Your task to perform on an android device: toggle notifications settings in the gmail app Image 0: 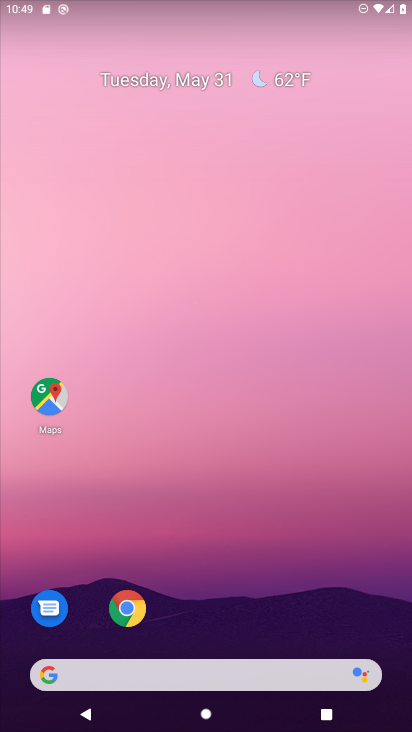
Step 0: drag from (305, 572) to (299, 199)
Your task to perform on an android device: toggle notifications settings in the gmail app Image 1: 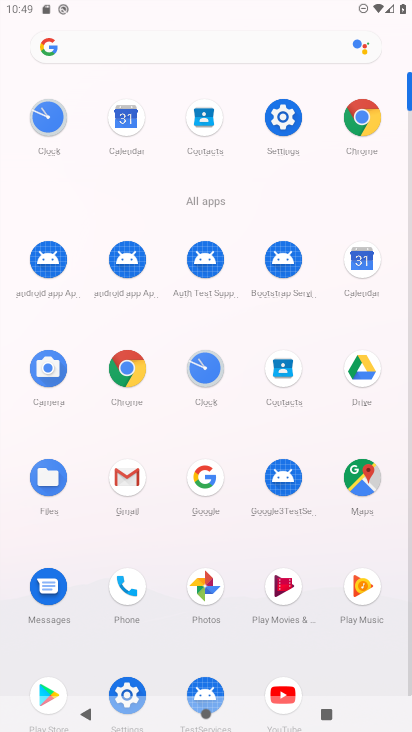
Step 1: click (131, 499)
Your task to perform on an android device: toggle notifications settings in the gmail app Image 2: 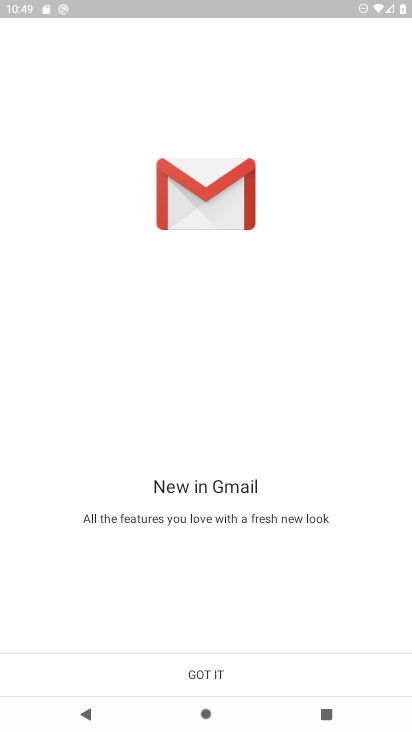
Step 2: click (228, 667)
Your task to perform on an android device: toggle notifications settings in the gmail app Image 3: 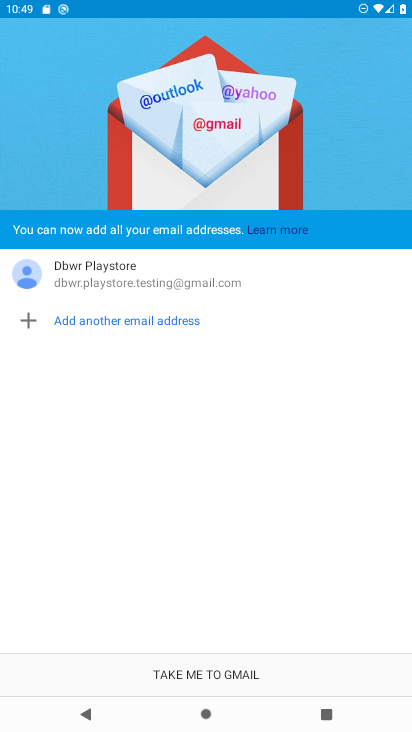
Step 3: click (219, 675)
Your task to perform on an android device: toggle notifications settings in the gmail app Image 4: 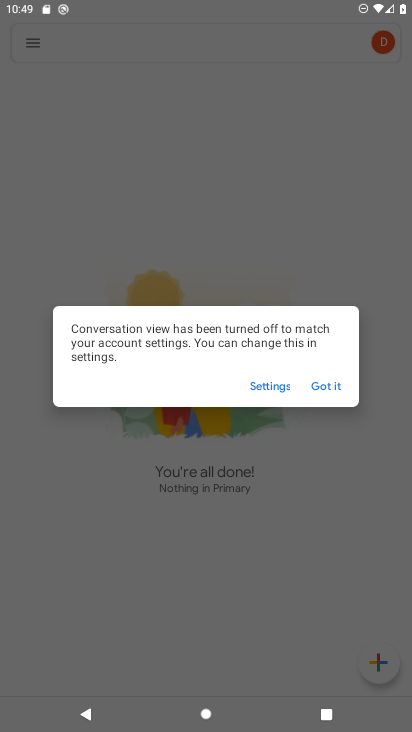
Step 4: click (323, 379)
Your task to perform on an android device: toggle notifications settings in the gmail app Image 5: 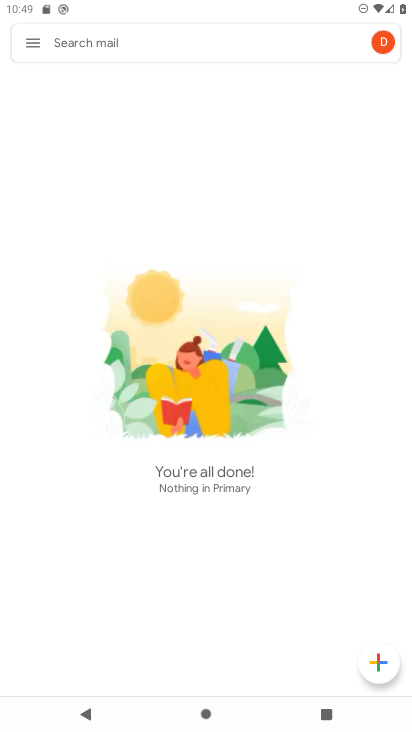
Step 5: click (26, 52)
Your task to perform on an android device: toggle notifications settings in the gmail app Image 6: 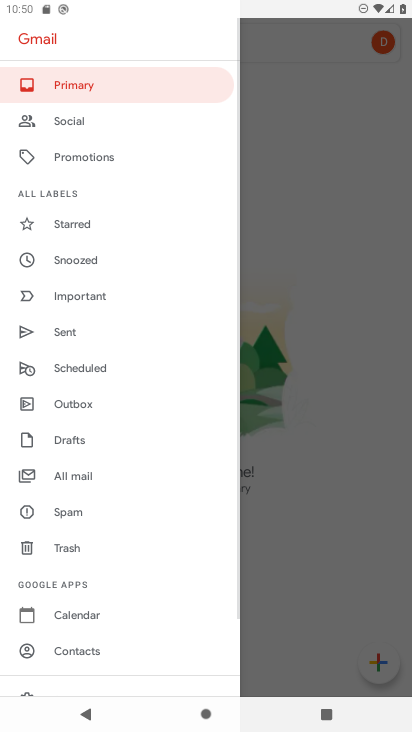
Step 6: drag from (121, 661) to (134, 277)
Your task to perform on an android device: toggle notifications settings in the gmail app Image 7: 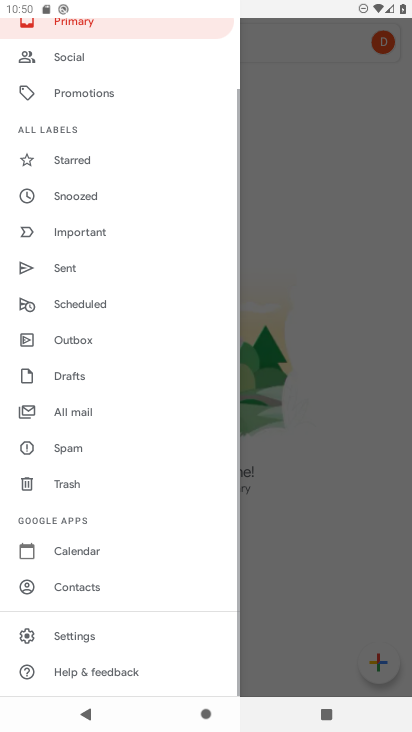
Step 7: click (121, 634)
Your task to perform on an android device: toggle notifications settings in the gmail app Image 8: 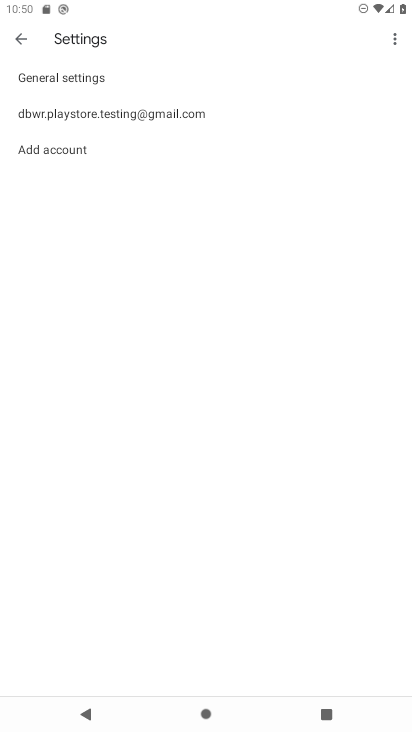
Step 8: click (184, 110)
Your task to perform on an android device: toggle notifications settings in the gmail app Image 9: 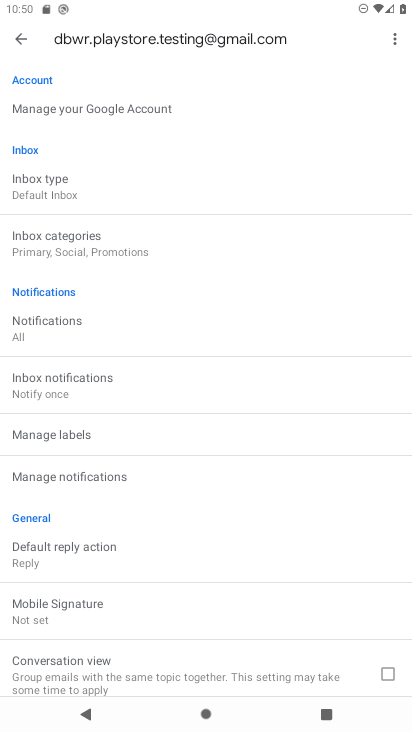
Step 9: click (123, 330)
Your task to perform on an android device: toggle notifications settings in the gmail app Image 10: 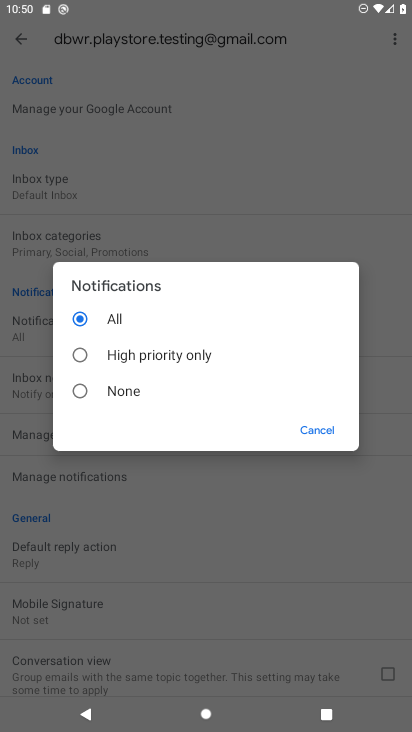
Step 10: click (136, 391)
Your task to perform on an android device: toggle notifications settings in the gmail app Image 11: 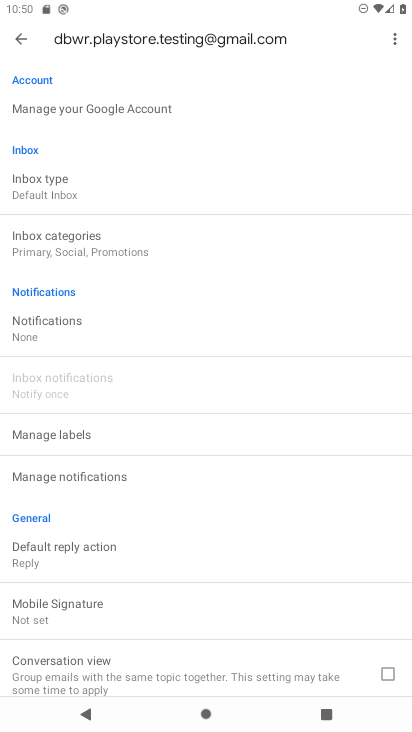
Step 11: task complete